Your task to perform on an android device: turn off priority inbox in the gmail app Image 0: 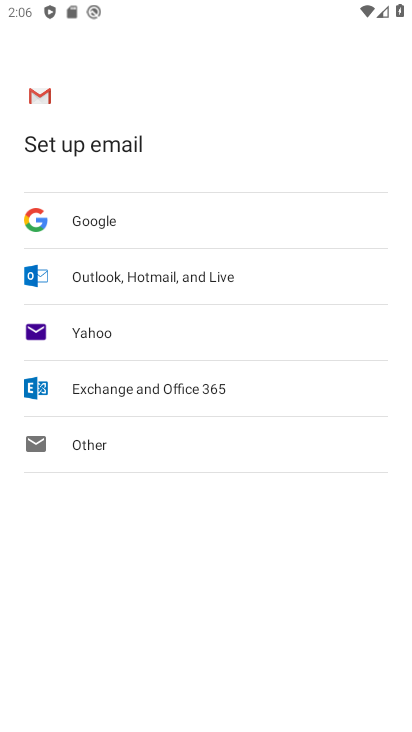
Step 0: press back button
Your task to perform on an android device: turn off priority inbox in the gmail app Image 1: 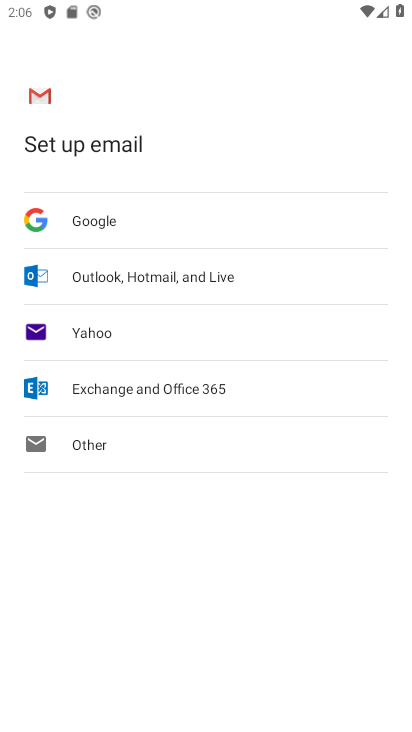
Step 1: press back button
Your task to perform on an android device: turn off priority inbox in the gmail app Image 2: 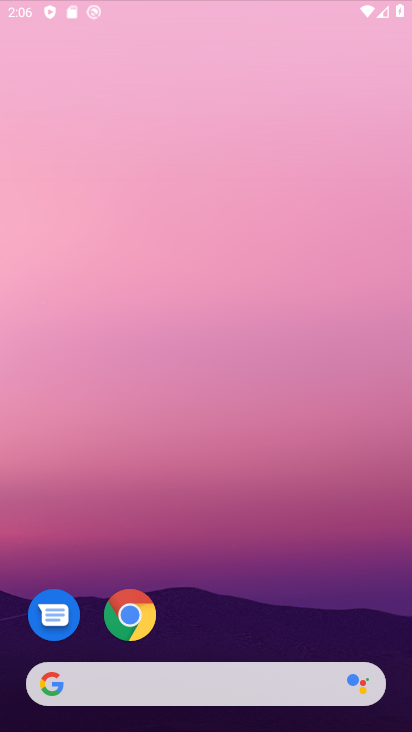
Step 2: press back button
Your task to perform on an android device: turn off priority inbox in the gmail app Image 3: 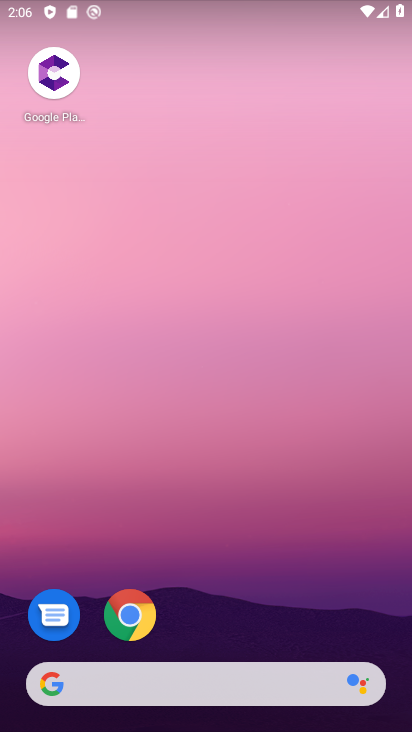
Step 3: press back button
Your task to perform on an android device: turn off priority inbox in the gmail app Image 4: 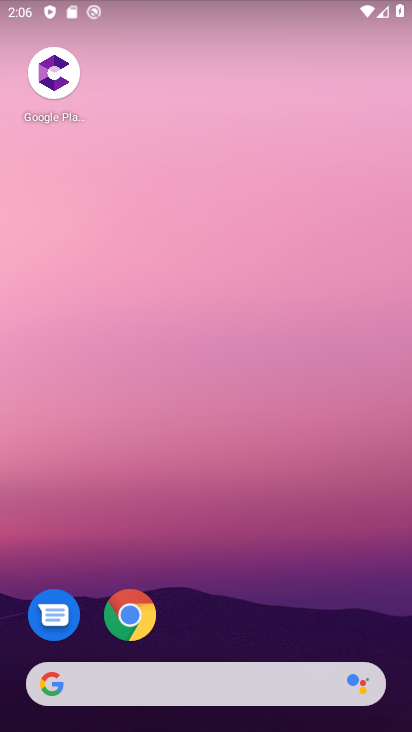
Step 4: drag from (267, 699) to (222, 139)
Your task to perform on an android device: turn off priority inbox in the gmail app Image 5: 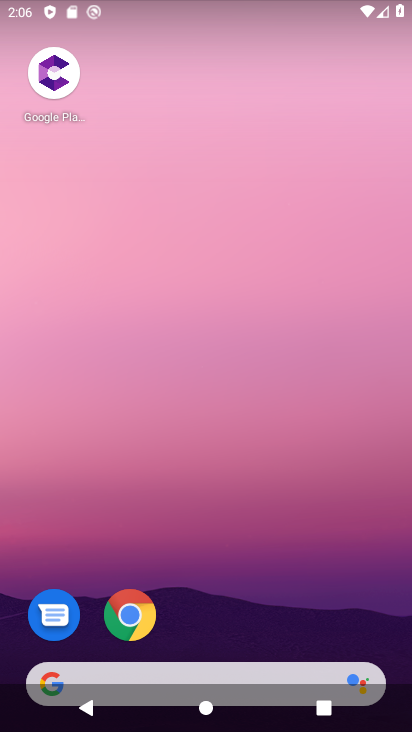
Step 5: drag from (255, 618) to (138, 51)
Your task to perform on an android device: turn off priority inbox in the gmail app Image 6: 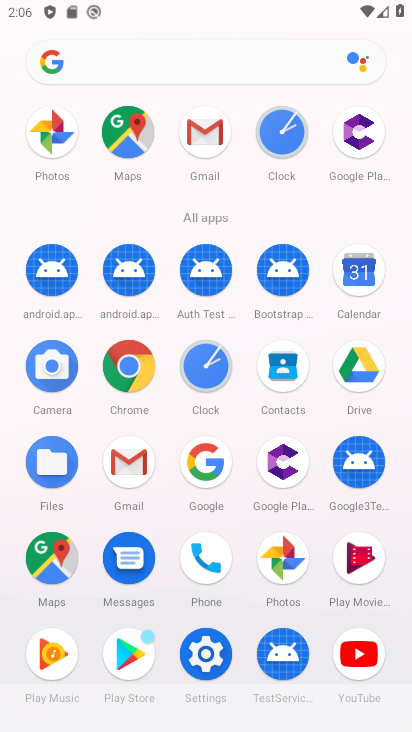
Step 6: click (126, 457)
Your task to perform on an android device: turn off priority inbox in the gmail app Image 7: 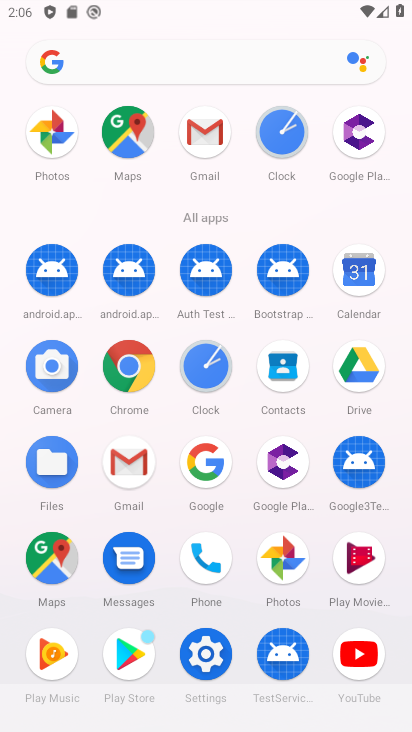
Step 7: click (124, 460)
Your task to perform on an android device: turn off priority inbox in the gmail app Image 8: 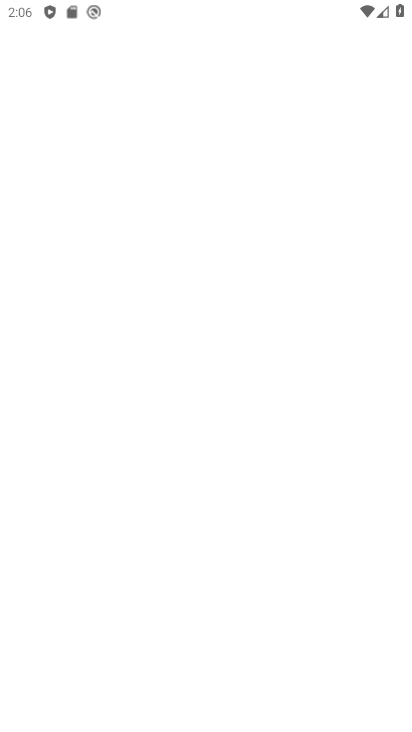
Step 8: click (118, 474)
Your task to perform on an android device: turn off priority inbox in the gmail app Image 9: 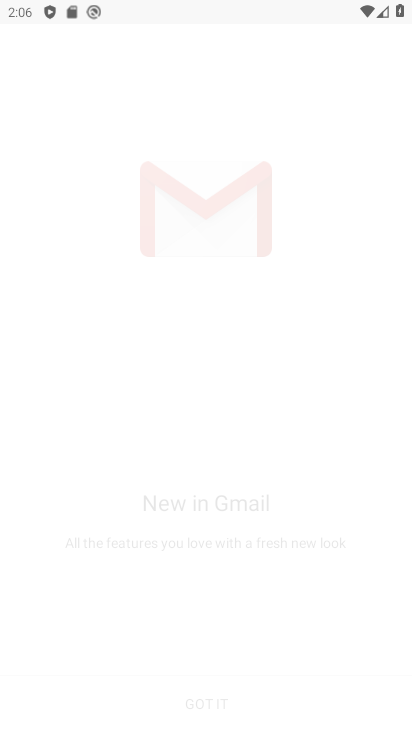
Step 9: click (127, 470)
Your task to perform on an android device: turn off priority inbox in the gmail app Image 10: 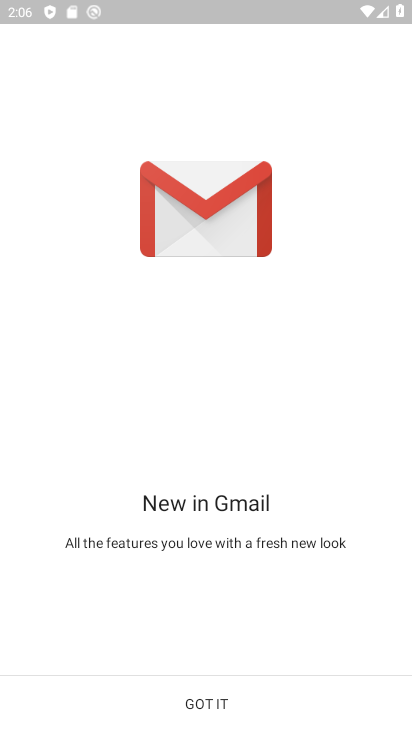
Step 10: click (214, 709)
Your task to perform on an android device: turn off priority inbox in the gmail app Image 11: 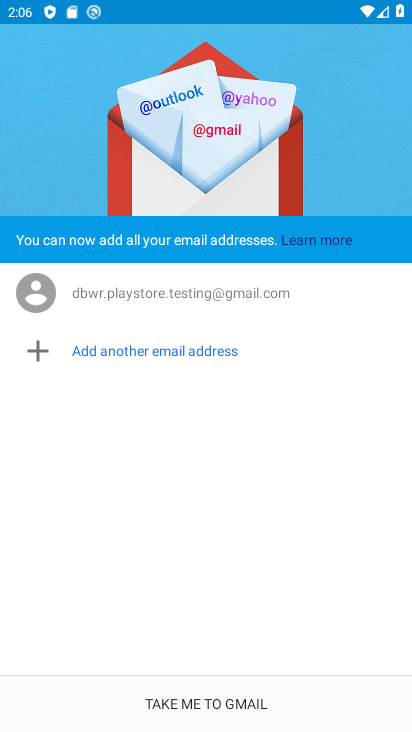
Step 11: click (208, 706)
Your task to perform on an android device: turn off priority inbox in the gmail app Image 12: 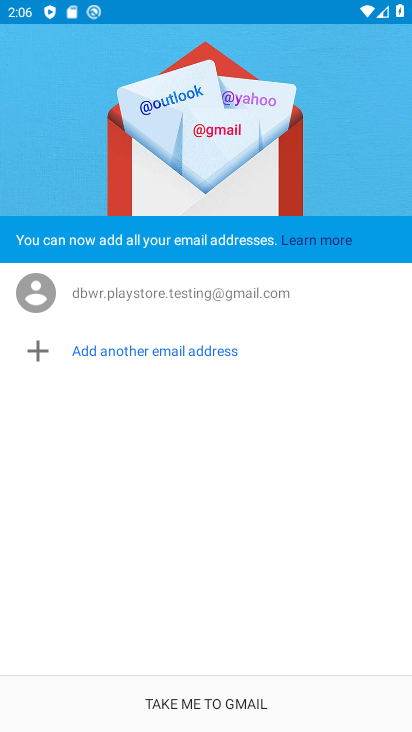
Step 12: click (211, 698)
Your task to perform on an android device: turn off priority inbox in the gmail app Image 13: 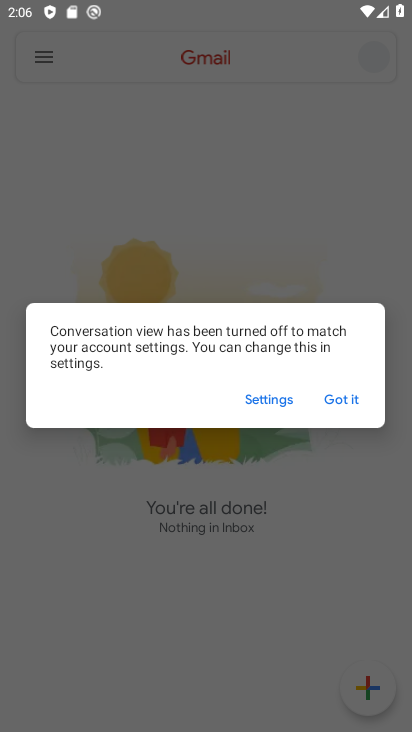
Step 13: click (274, 405)
Your task to perform on an android device: turn off priority inbox in the gmail app Image 14: 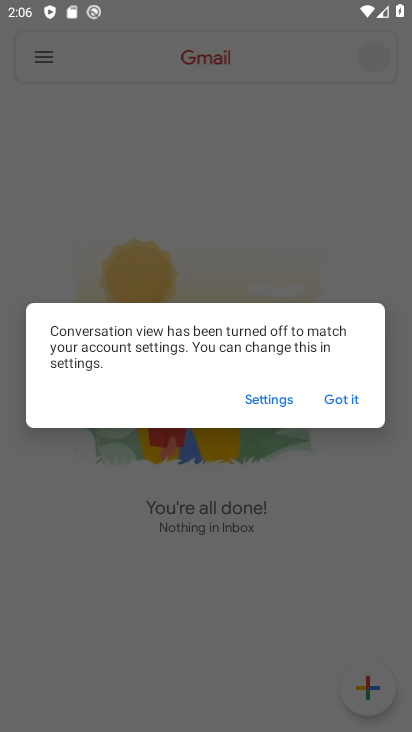
Step 14: click (297, 387)
Your task to perform on an android device: turn off priority inbox in the gmail app Image 15: 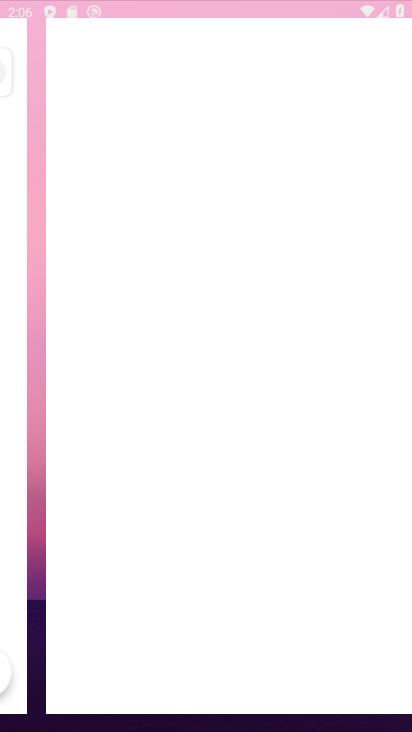
Step 15: click (346, 400)
Your task to perform on an android device: turn off priority inbox in the gmail app Image 16: 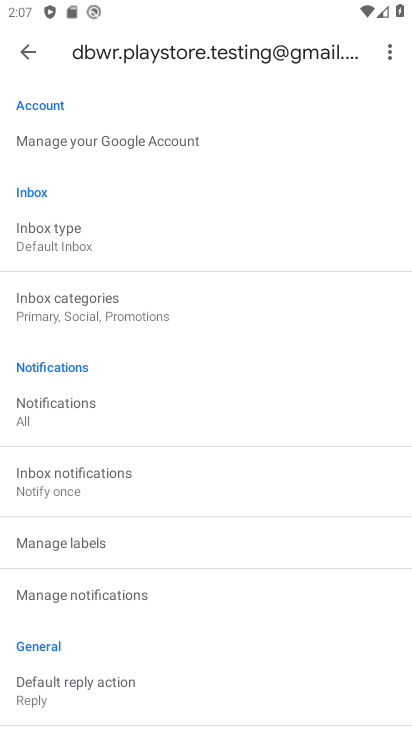
Step 16: click (31, 230)
Your task to perform on an android device: turn off priority inbox in the gmail app Image 17: 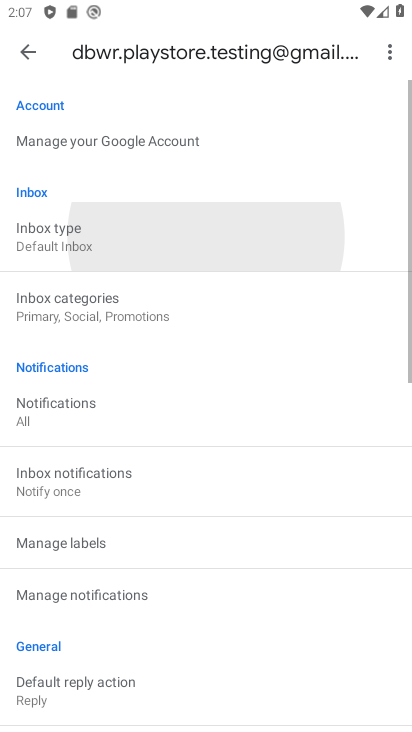
Step 17: click (37, 227)
Your task to perform on an android device: turn off priority inbox in the gmail app Image 18: 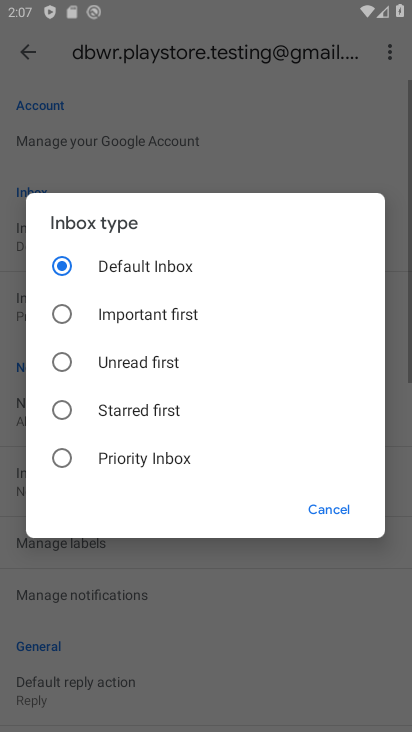
Step 18: click (20, 208)
Your task to perform on an android device: turn off priority inbox in the gmail app Image 19: 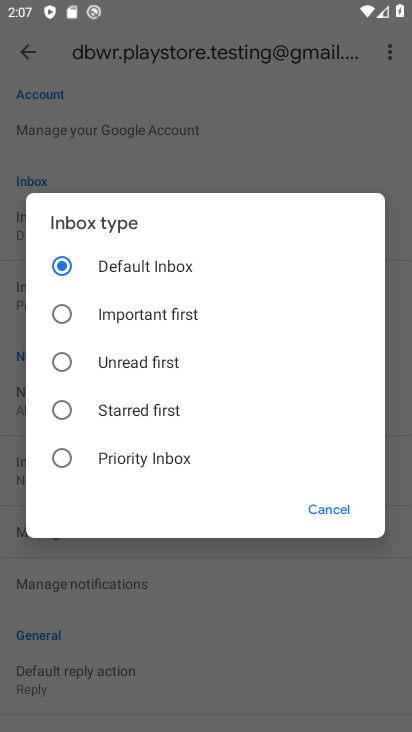
Step 19: click (325, 505)
Your task to perform on an android device: turn off priority inbox in the gmail app Image 20: 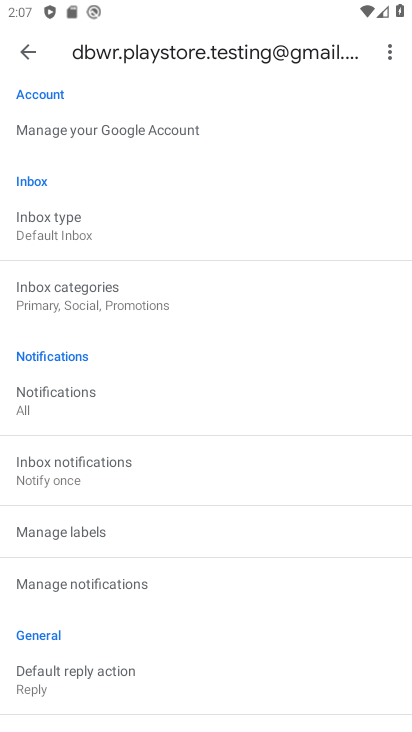
Step 20: task complete